Your task to perform on an android device: Search for sushi restaurants on Maps Image 0: 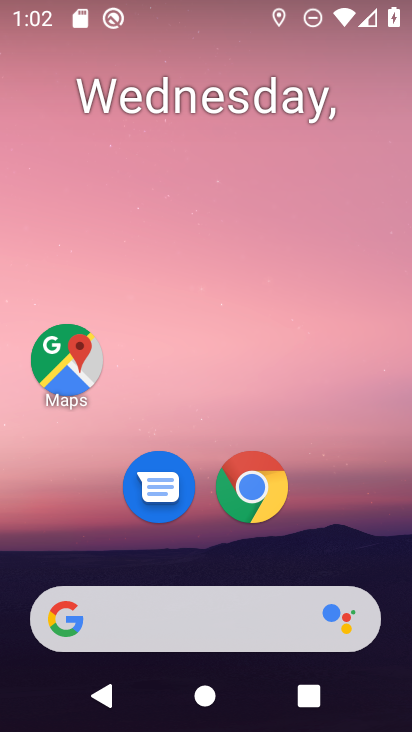
Step 0: drag from (356, 551) to (350, 86)
Your task to perform on an android device: Search for sushi restaurants on Maps Image 1: 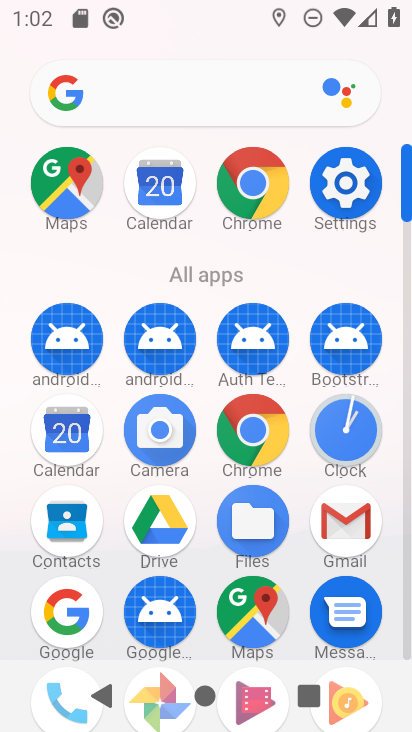
Step 1: click (249, 608)
Your task to perform on an android device: Search for sushi restaurants on Maps Image 2: 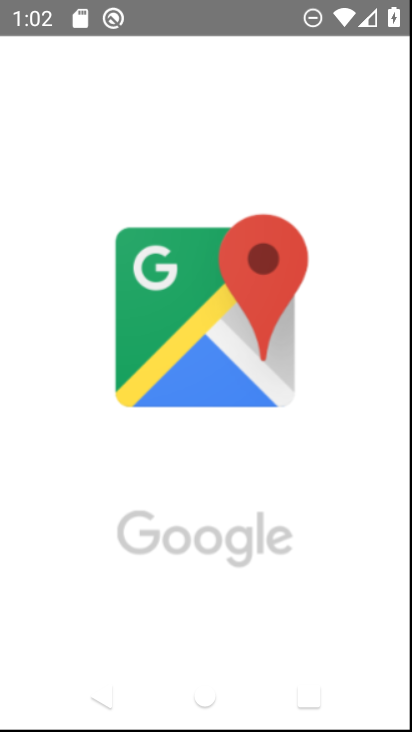
Step 2: task complete